Your task to perform on an android device: allow notifications from all sites in the chrome app Image 0: 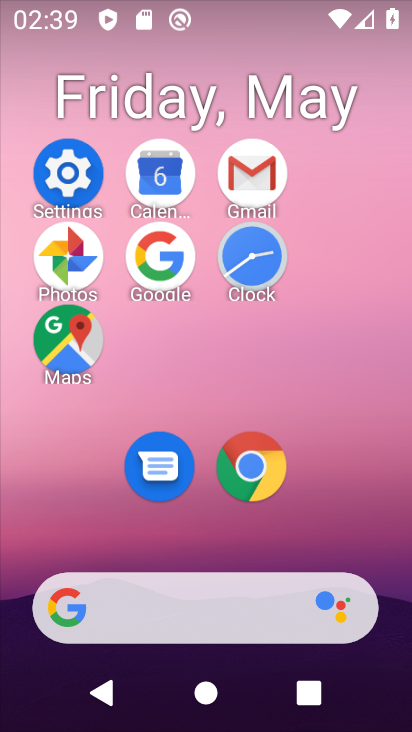
Step 0: click (241, 442)
Your task to perform on an android device: allow notifications from all sites in the chrome app Image 1: 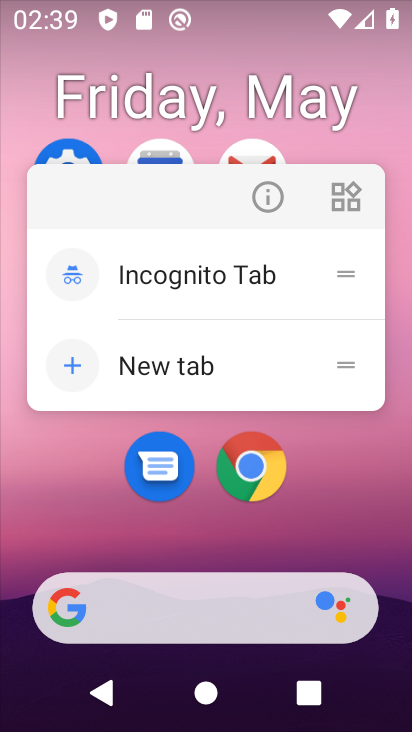
Step 1: click (259, 430)
Your task to perform on an android device: allow notifications from all sites in the chrome app Image 2: 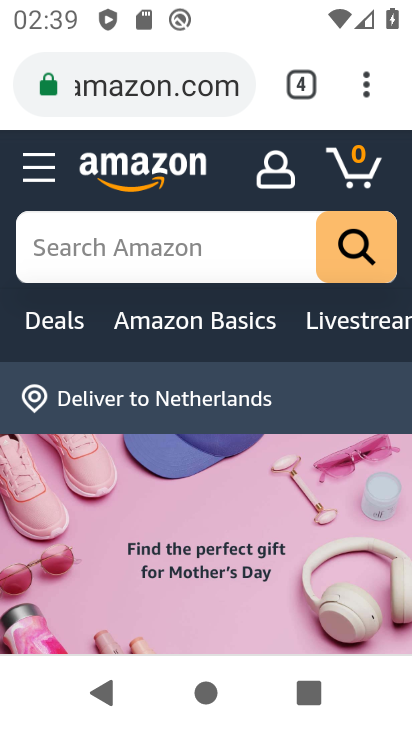
Step 2: click (376, 77)
Your task to perform on an android device: allow notifications from all sites in the chrome app Image 3: 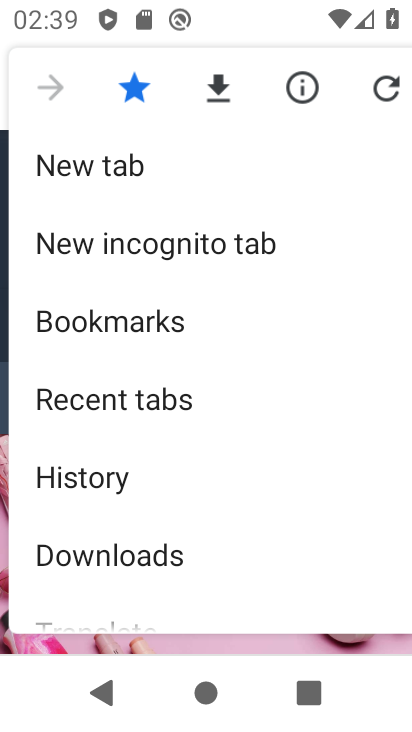
Step 3: drag from (249, 470) to (271, 81)
Your task to perform on an android device: allow notifications from all sites in the chrome app Image 4: 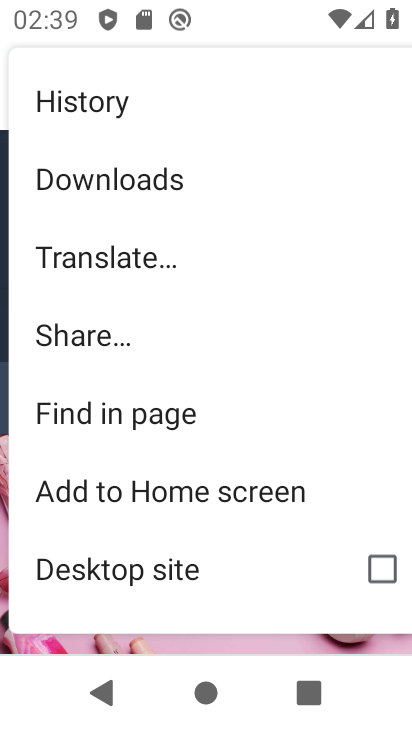
Step 4: drag from (101, 431) to (120, 131)
Your task to perform on an android device: allow notifications from all sites in the chrome app Image 5: 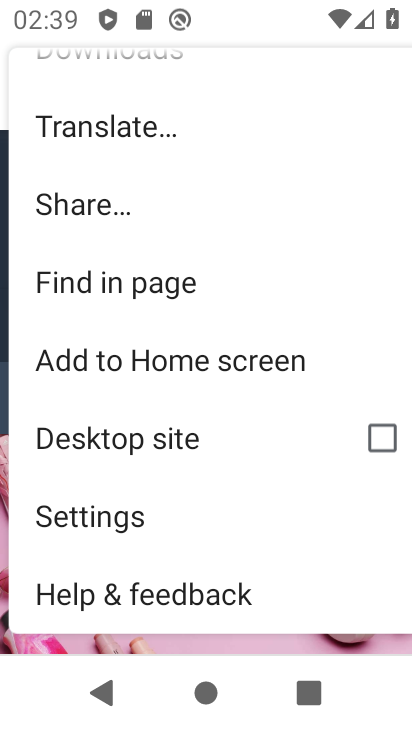
Step 5: click (88, 514)
Your task to perform on an android device: allow notifications from all sites in the chrome app Image 6: 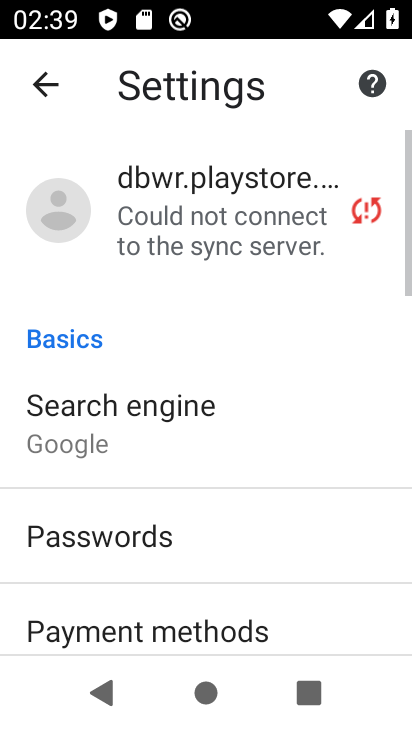
Step 6: drag from (97, 450) to (104, 186)
Your task to perform on an android device: allow notifications from all sites in the chrome app Image 7: 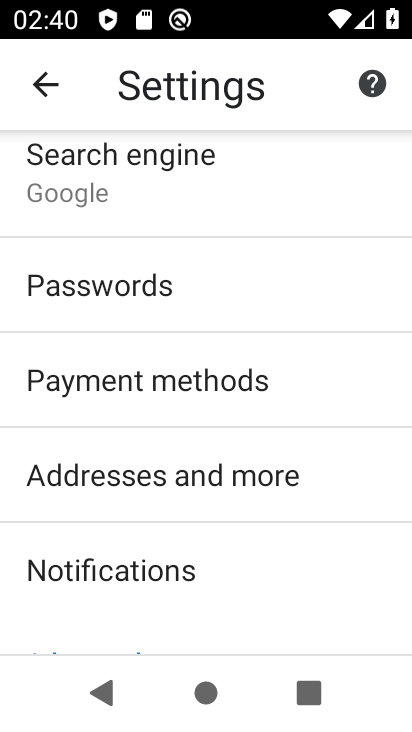
Step 7: drag from (119, 542) to (127, 190)
Your task to perform on an android device: allow notifications from all sites in the chrome app Image 8: 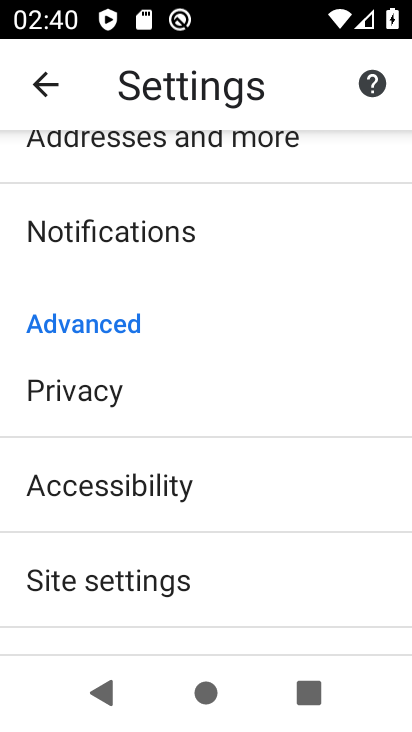
Step 8: click (122, 545)
Your task to perform on an android device: allow notifications from all sites in the chrome app Image 9: 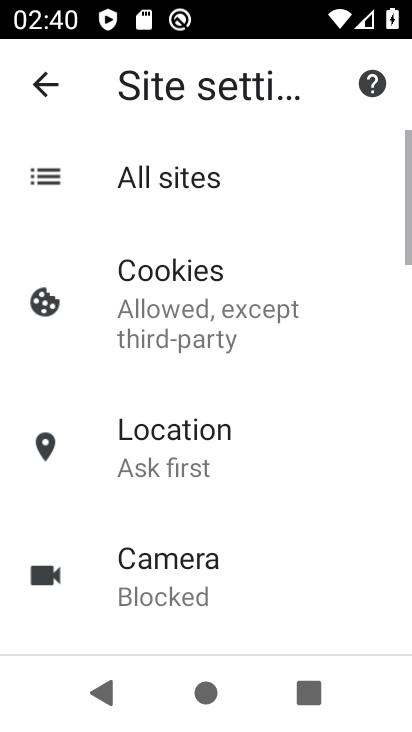
Step 9: click (301, 284)
Your task to perform on an android device: allow notifications from all sites in the chrome app Image 10: 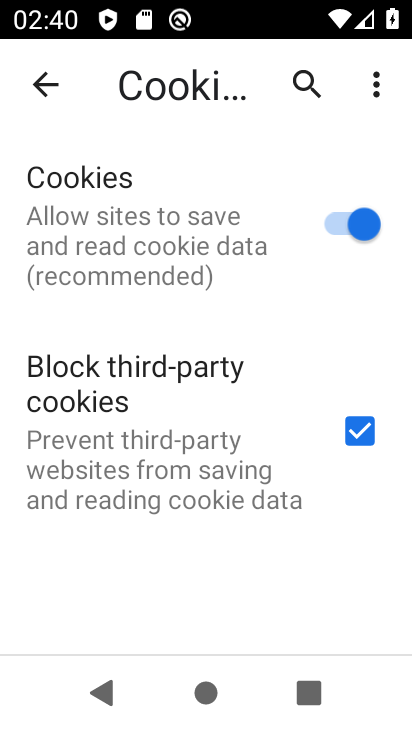
Step 10: task complete